Your task to perform on an android device: turn off picture-in-picture Image 0: 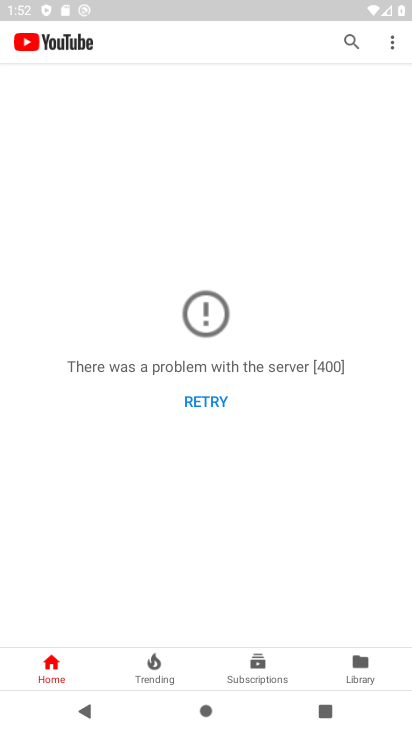
Step 0: press home button
Your task to perform on an android device: turn off picture-in-picture Image 1: 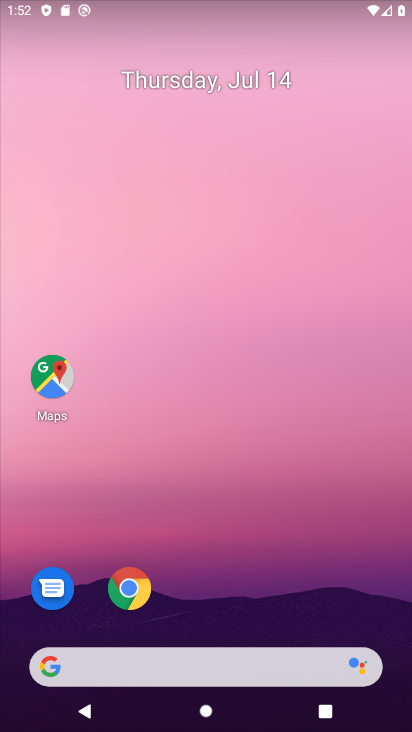
Step 1: click (142, 583)
Your task to perform on an android device: turn off picture-in-picture Image 2: 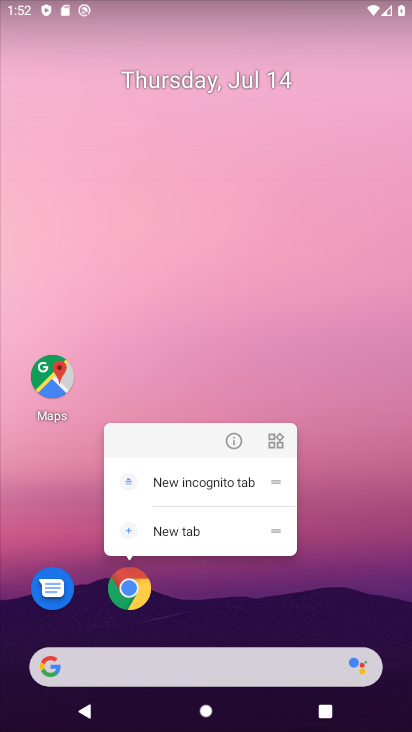
Step 2: click (239, 441)
Your task to perform on an android device: turn off picture-in-picture Image 3: 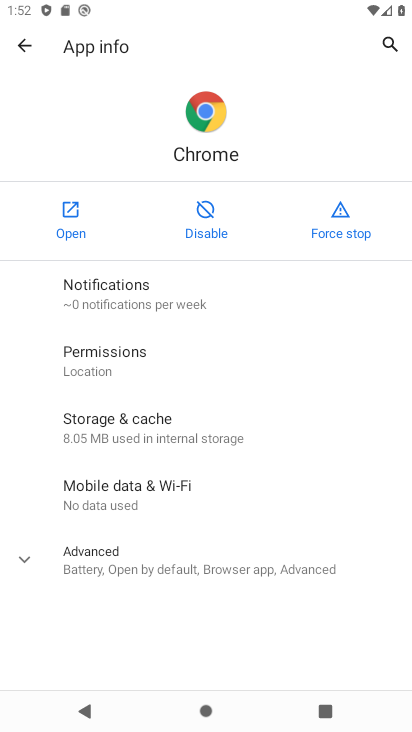
Step 3: click (222, 572)
Your task to perform on an android device: turn off picture-in-picture Image 4: 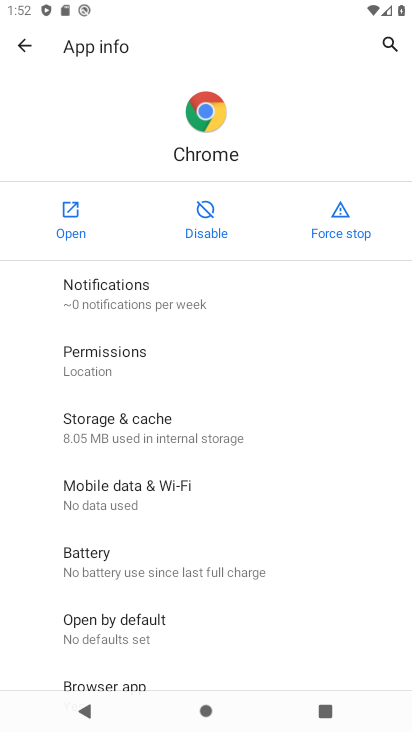
Step 4: drag from (249, 656) to (184, 249)
Your task to perform on an android device: turn off picture-in-picture Image 5: 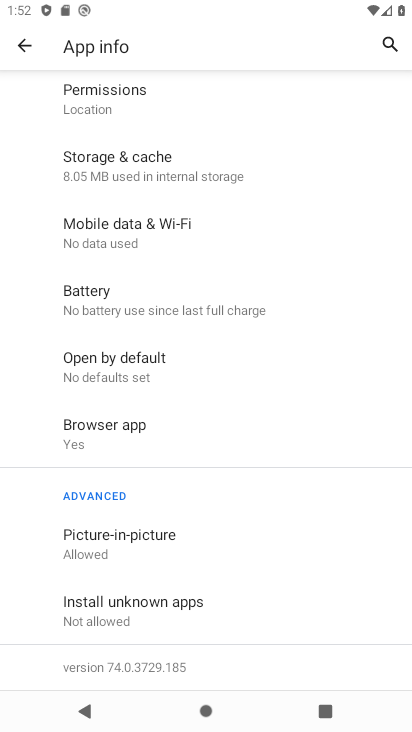
Step 5: click (177, 524)
Your task to perform on an android device: turn off picture-in-picture Image 6: 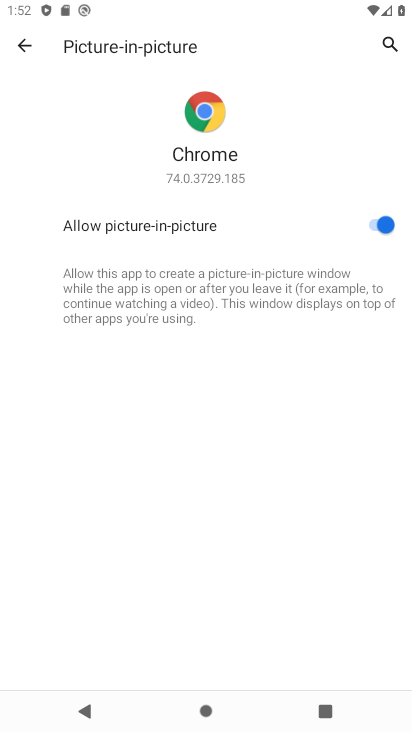
Step 6: click (373, 216)
Your task to perform on an android device: turn off picture-in-picture Image 7: 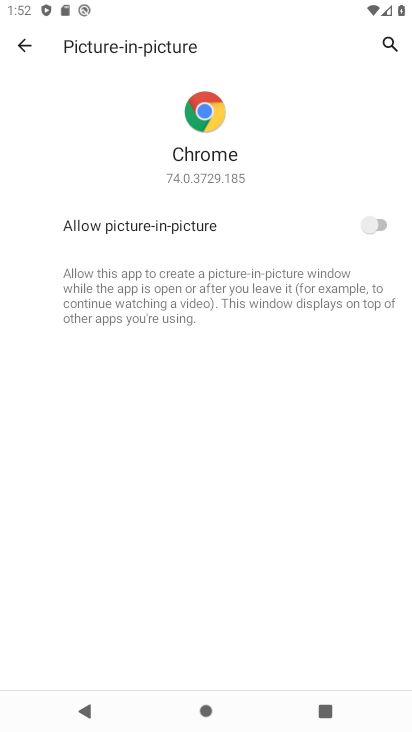
Step 7: task complete